Your task to perform on an android device: set default search engine in the chrome app Image 0: 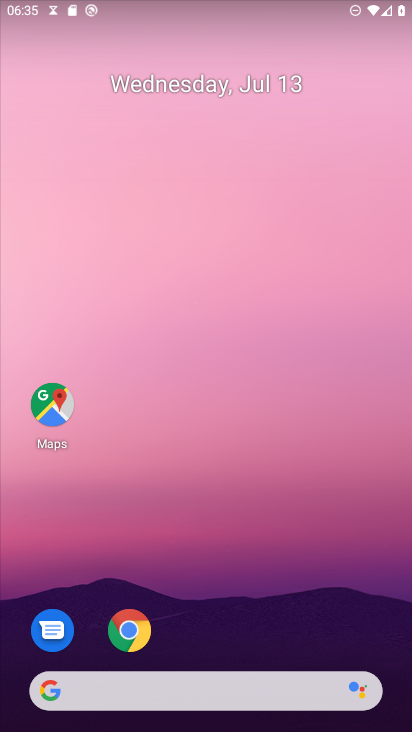
Step 0: drag from (295, 684) to (400, 2)
Your task to perform on an android device: set default search engine in the chrome app Image 1: 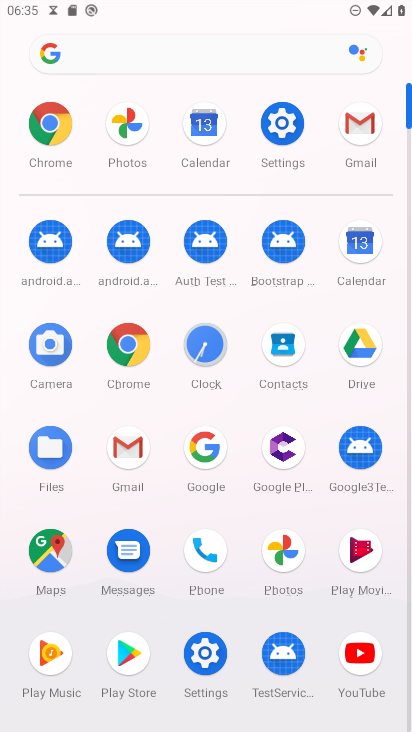
Step 1: click (137, 343)
Your task to perform on an android device: set default search engine in the chrome app Image 2: 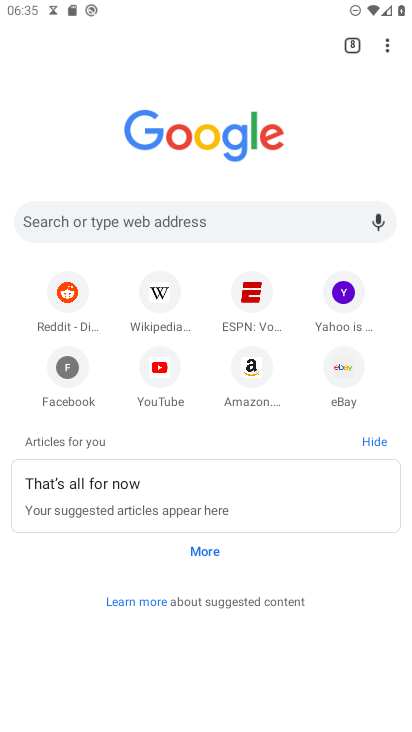
Step 2: drag from (383, 37) to (270, 383)
Your task to perform on an android device: set default search engine in the chrome app Image 3: 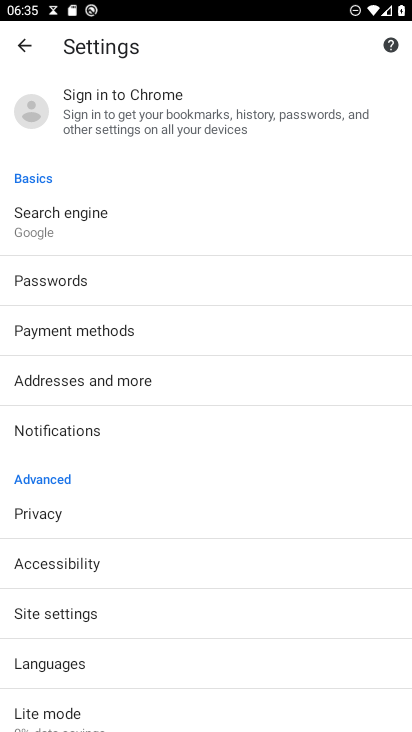
Step 3: click (45, 205)
Your task to perform on an android device: set default search engine in the chrome app Image 4: 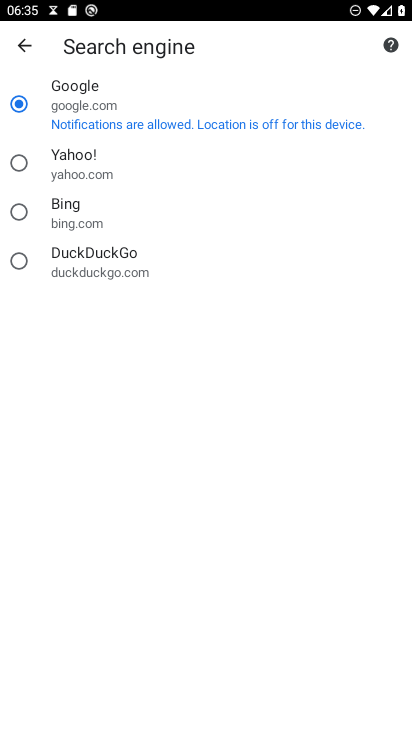
Step 4: task complete